Your task to perform on an android device: Open maps Image 0: 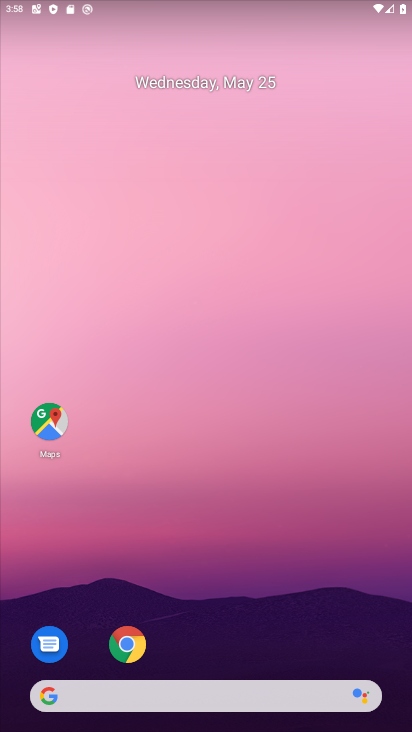
Step 0: click (52, 420)
Your task to perform on an android device: Open maps Image 1: 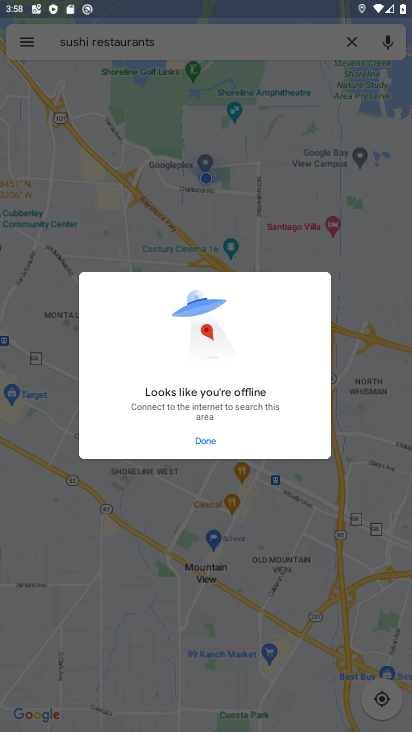
Step 1: click (209, 442)
Your task to perform on an android device: Open maps Image 2: 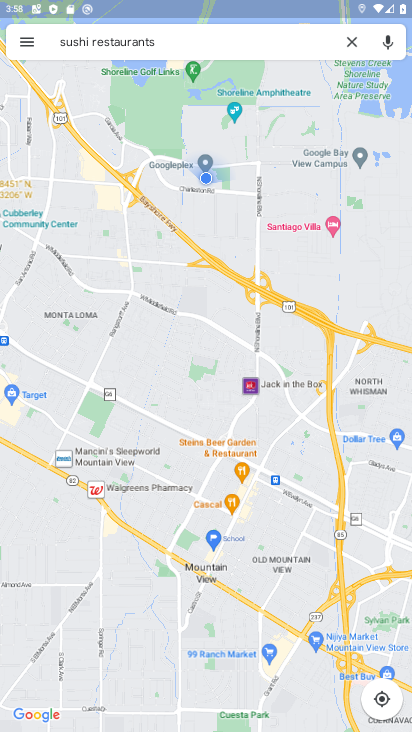
Step 2: task complete